Your task to perform on an android device: uninstall "Calculator" Image 0: 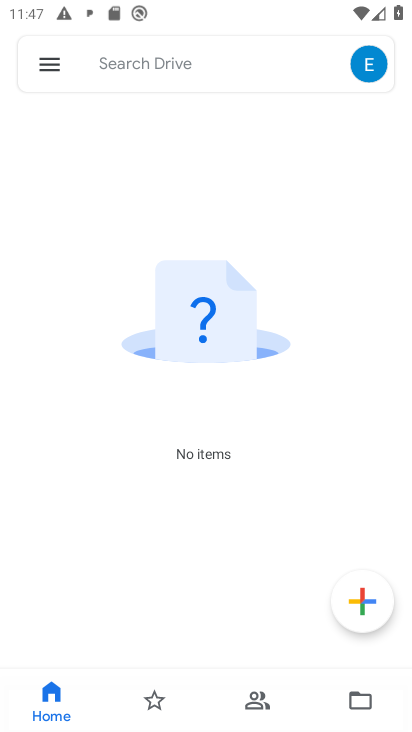
Step 0: press home button
Your task to perform on an android device: uninstall "Calculator" Image 1: 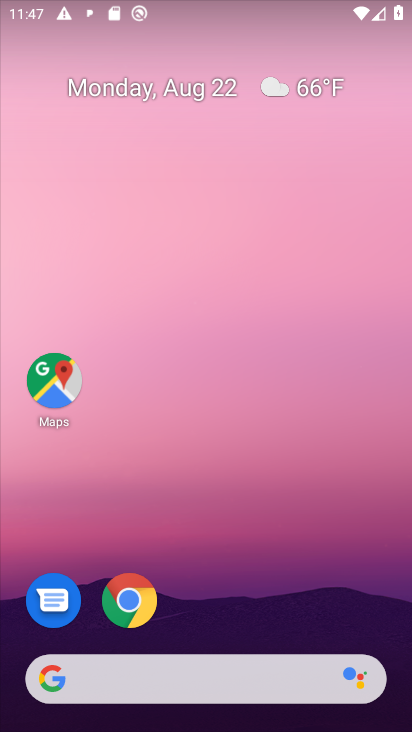
Step 1: drag from (221, 585) to (253, 211)
Your task to perform on an android device: uninstall "Calculator" Image 2: 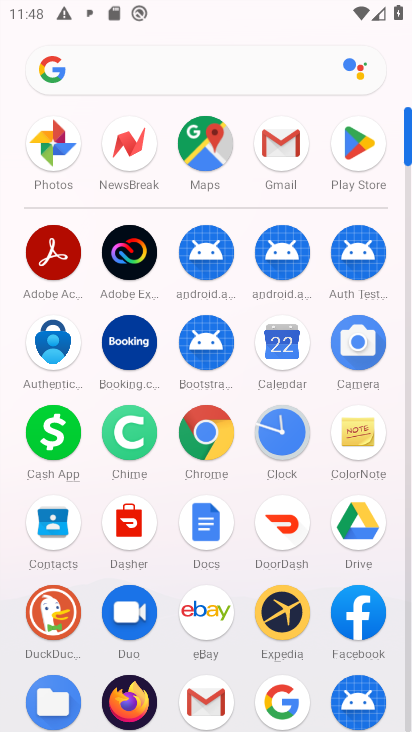
Step 2: click (360, 153)
Your task to perform on an android device: uninstall "Calculator" Image 3: 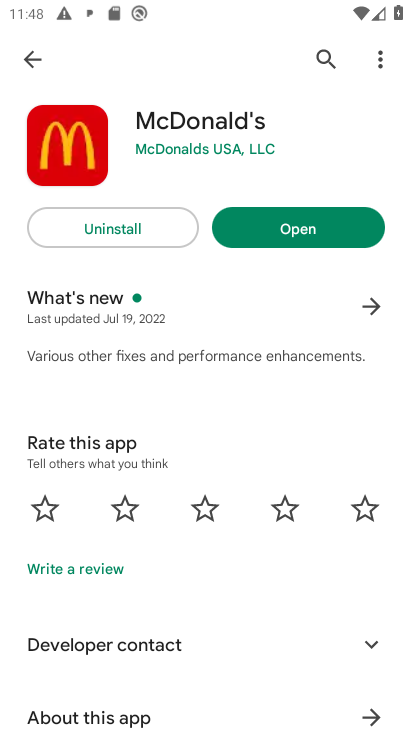
Step 3: click (332, 60)
Your task to perform on an android device: uninstall "Calculator" Image 4: 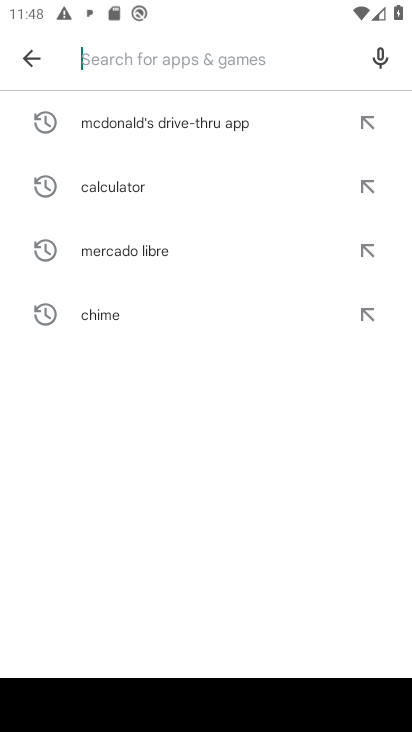
Step 4: type "Calculator"
Your task to perform on an android device: uninstall "Calculator" Image 5: 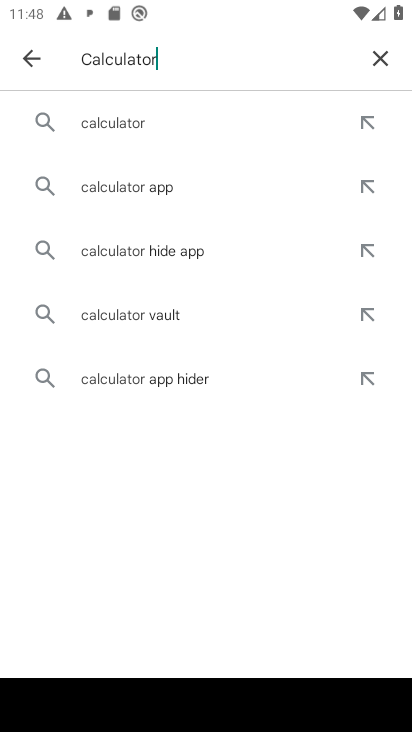
Step 5: click (103, 123)
Your task to perform on an android device: uninstall "Calculator" Image 6: 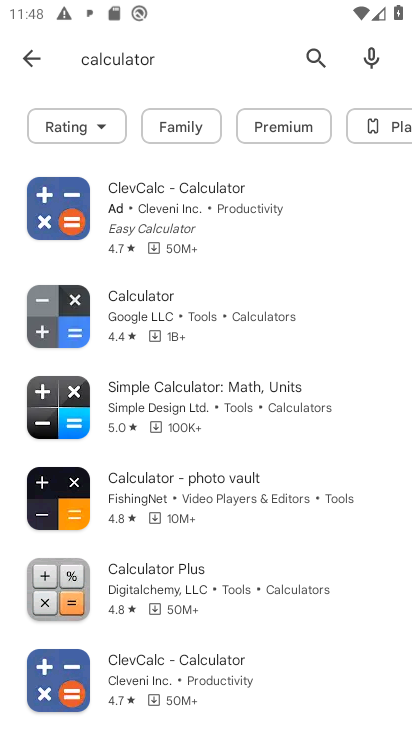
Step 6: click (153, 330)
Your task to perform on an android device: uninstall "Calculator" Image 7: 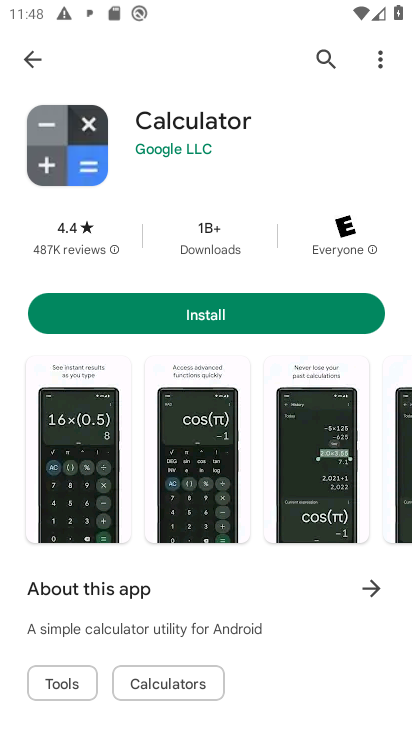
Step 7: task complete